Your task to perform on an android device: open app "Speedtest by Ookla" Image 0: 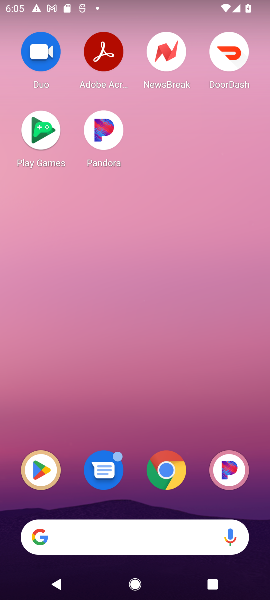
Step 0: drag from (217, 421) to (254, 257)
Your task to perform on an android device: open app "Speedtest by Ookla" Image 1: 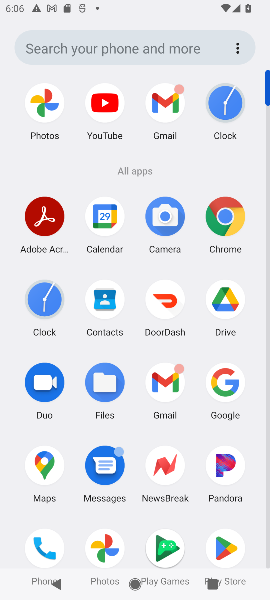
Step 1: click (217, 553)
Your task to perform on an android device: open app "Speedtest by Ookla" Image 2: 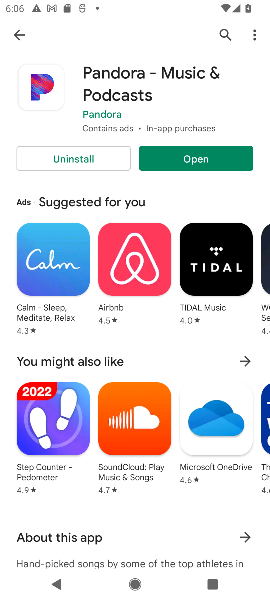
Step 2: click (230, 26)
Your task to perform on an android device: open app "Speedtest by Ookla" Image 3: 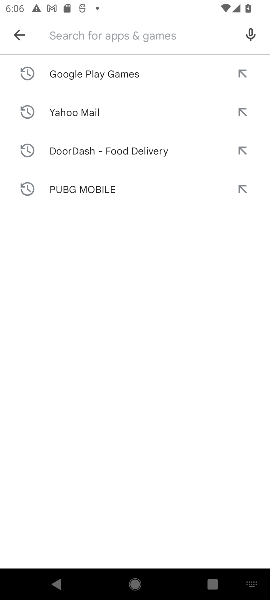
Step 3: type "Speedtest by Ookla"
Your task to perform on an android device: open app "Speedtest by Ookla" Image 4: 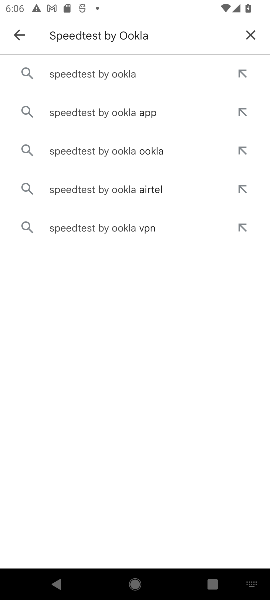
Step 4: press enter
Your task to perform on an android device: open app "Speedtest by Ookla" Image 5: 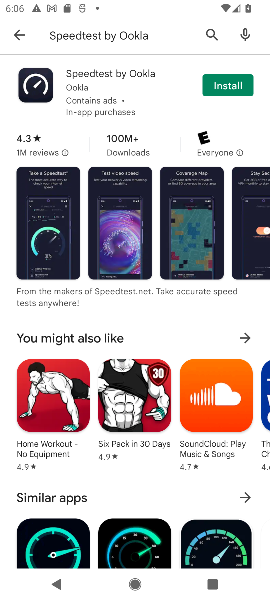
Step 5: task complete